Your task to perform on an android device: Open display settings Image 0: 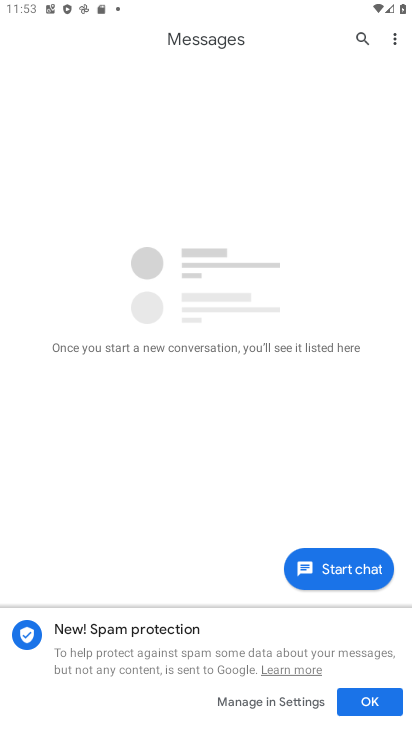
Step 0: press home button
Your task to perform on an android device: Open display settings Image 1: 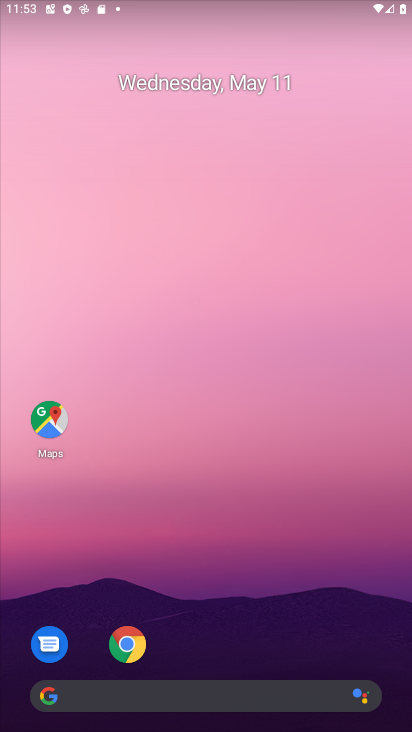
Step 1: drag from (197, 620) to (244, 101)
Your task to perform on an android device: Open display settings Image 2: 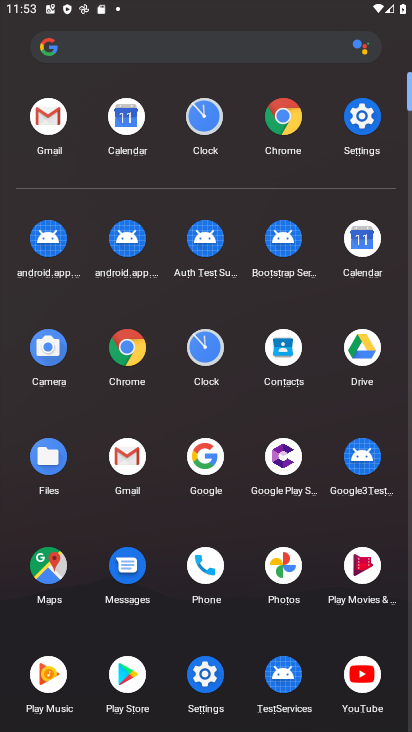
Step 2: click (386, 118)
Your task to perform on an android device: Open display settings Image 3: 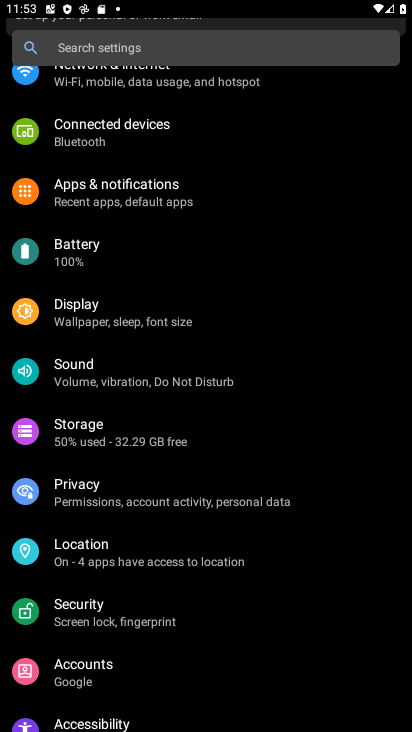
Step 3: click (148, 303)
Your task to perform on an android device: Open display settings Image 4: 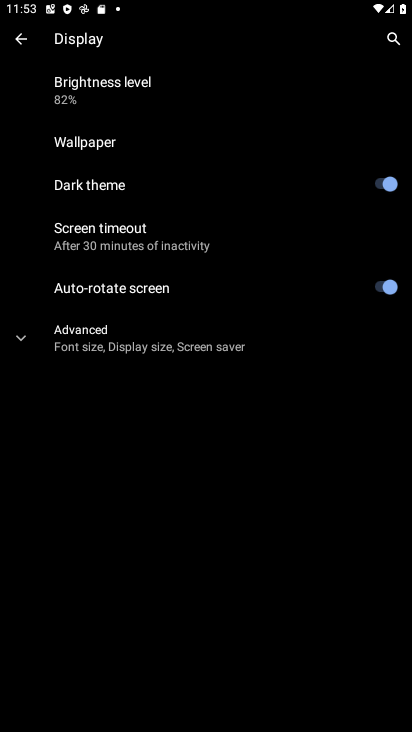
Step 4: task complete